Your task to perform on an android device: open app "Instagram" (install if not already installed), go to login, and select forgot password Image 0: 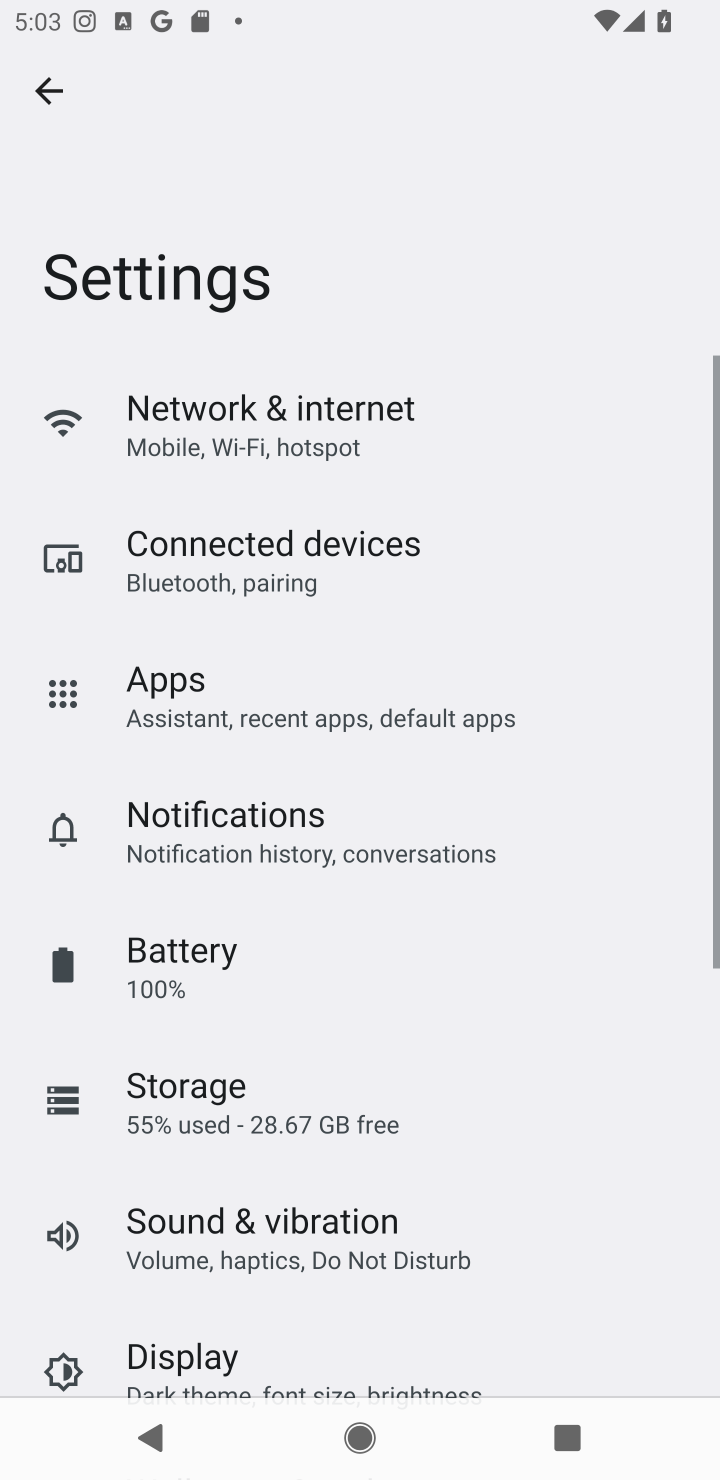
Step 0: press home button
Your task to perform on an android device: open app "Instagram" (install if not already installed), go to login, and select forgot password Image 1: 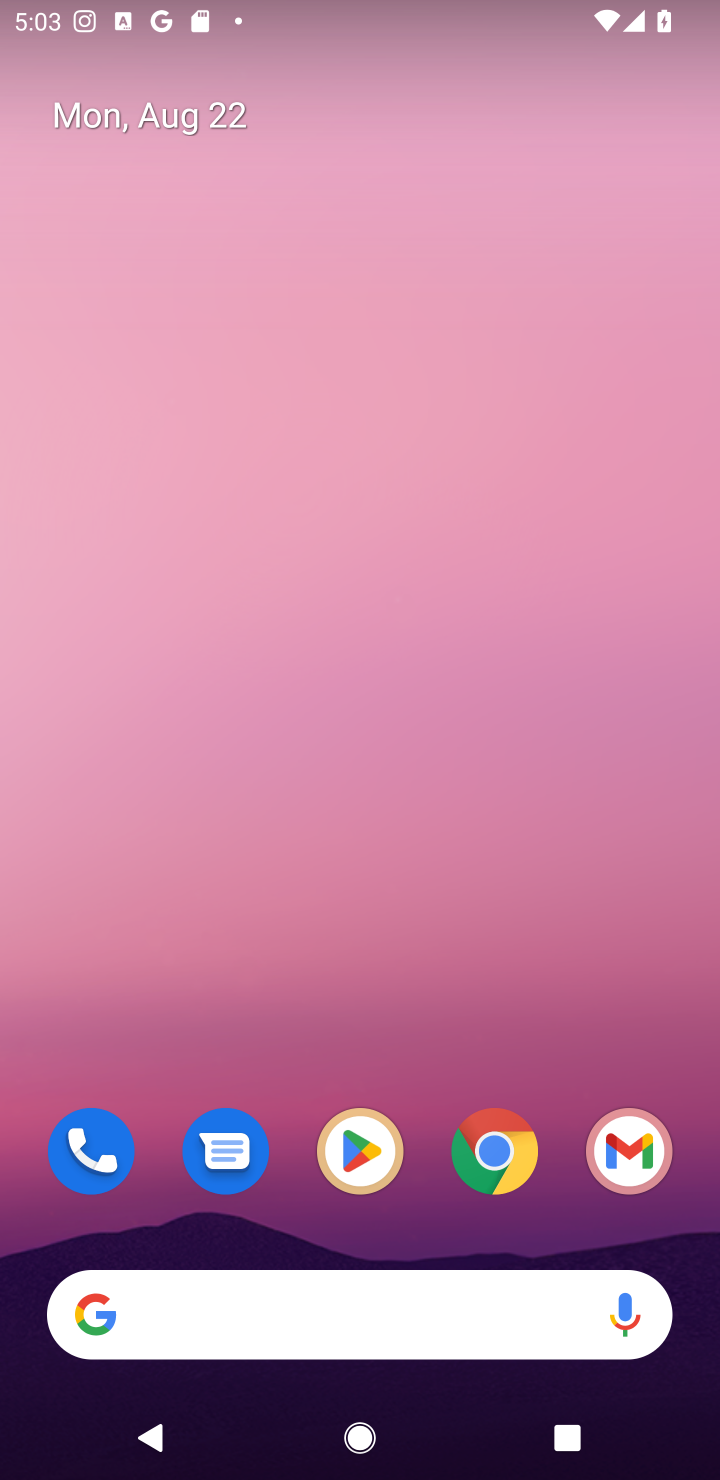
Step 1: click (344, 1150)
Your task to perform on an android device: open app "Instagram" (install if not already installed), go to login, and select forgot password Image 2: 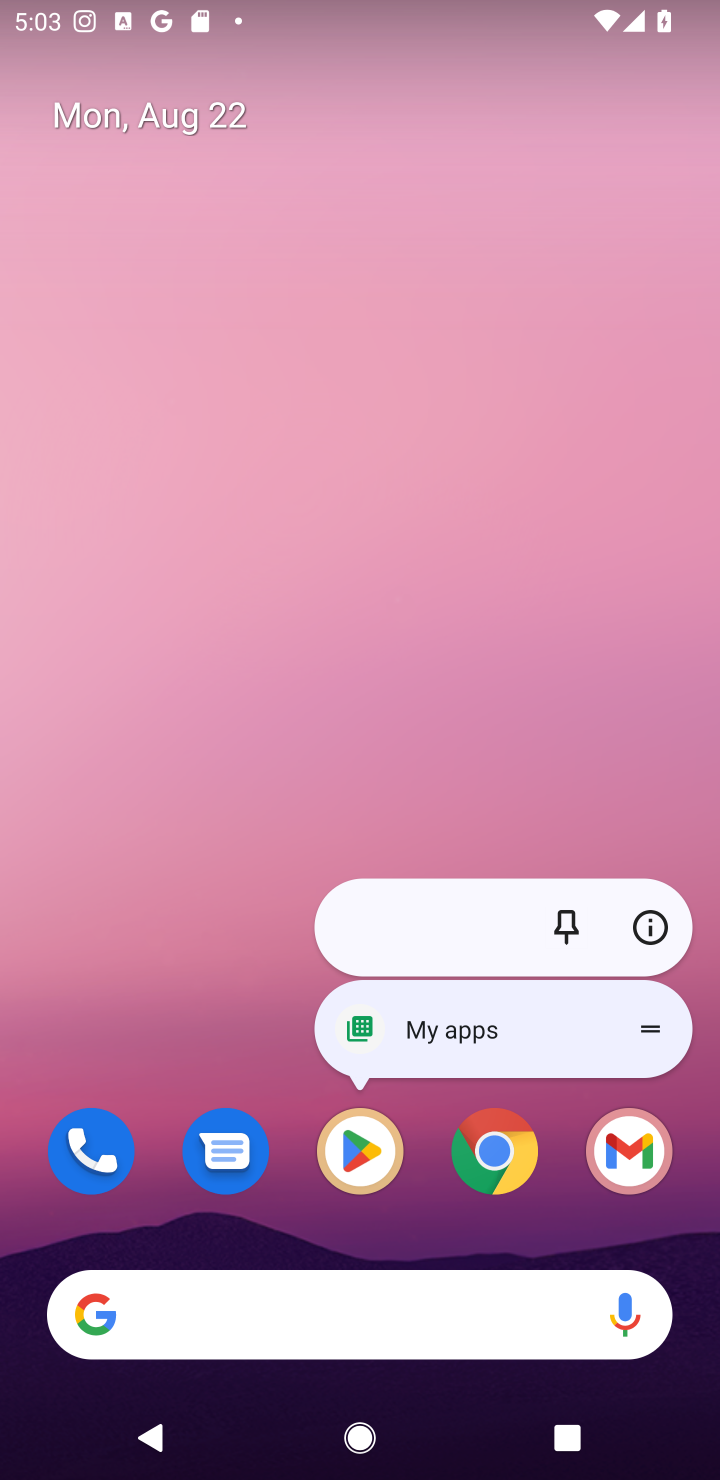
Step 2: click (354, 1150)
Your task to perform on an android device: open app "Instagram" (install if not already installed), go to login, and select forgot password Image 3: 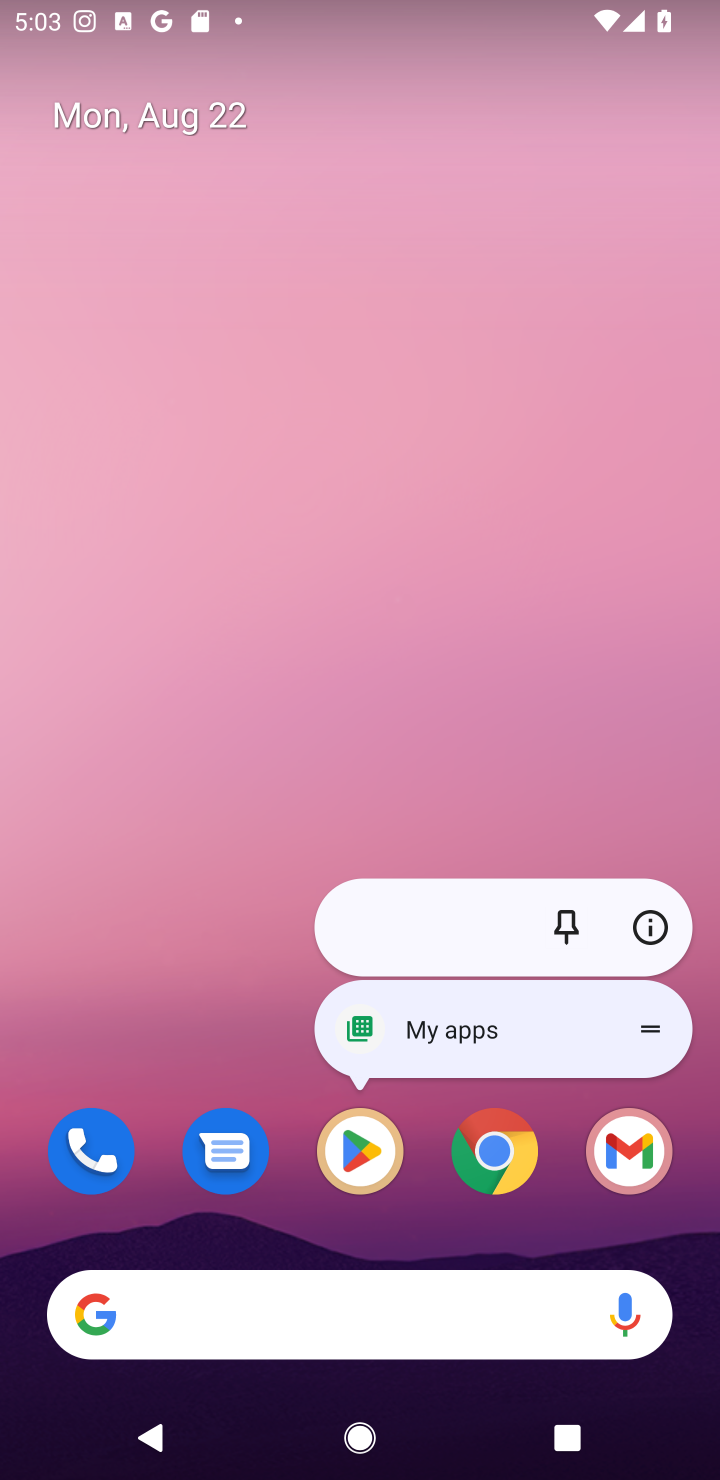
Step 3: click (354, 1152)
Your task to perform on an android device: open app "Instagram" (install if not already installed), go to login, and select forgot password Image 4: 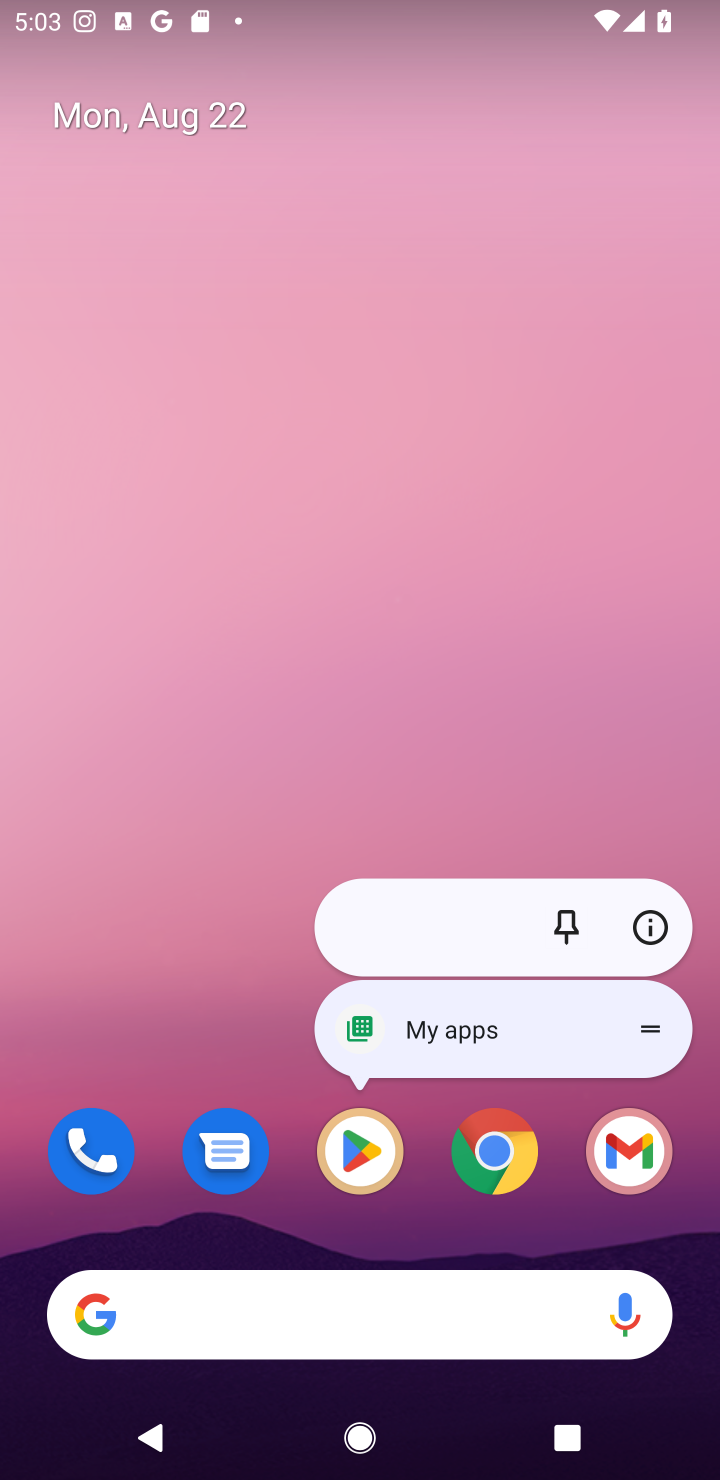
Step 4: click (375, 1164)
Your task to perform on an android device: open app "Instagram" (install if not already installed), go to login, and select forgot password Image 5: 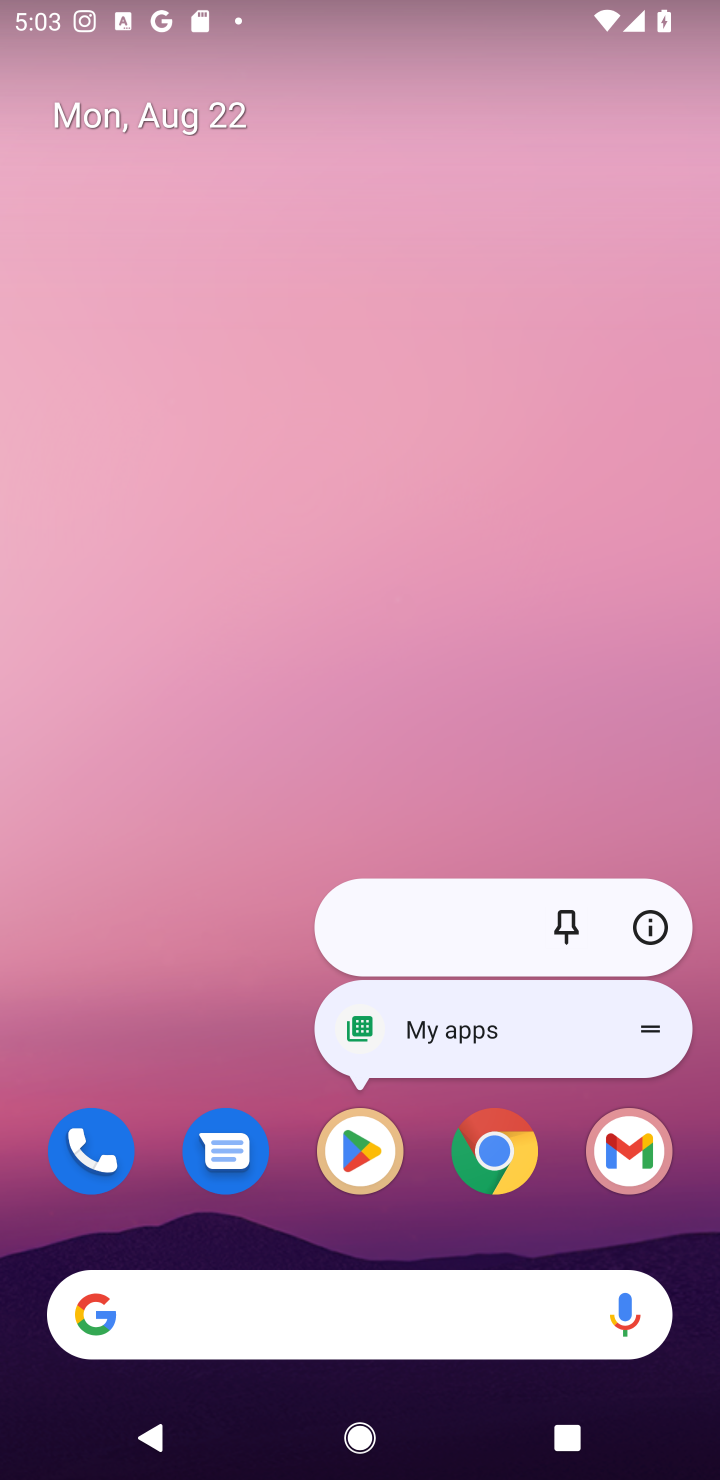
Step 5: click (363, 1166)
Your task to perform on an android device: open app "Instagram" (install if not already installed), go to login, and select forgot password Image 6: 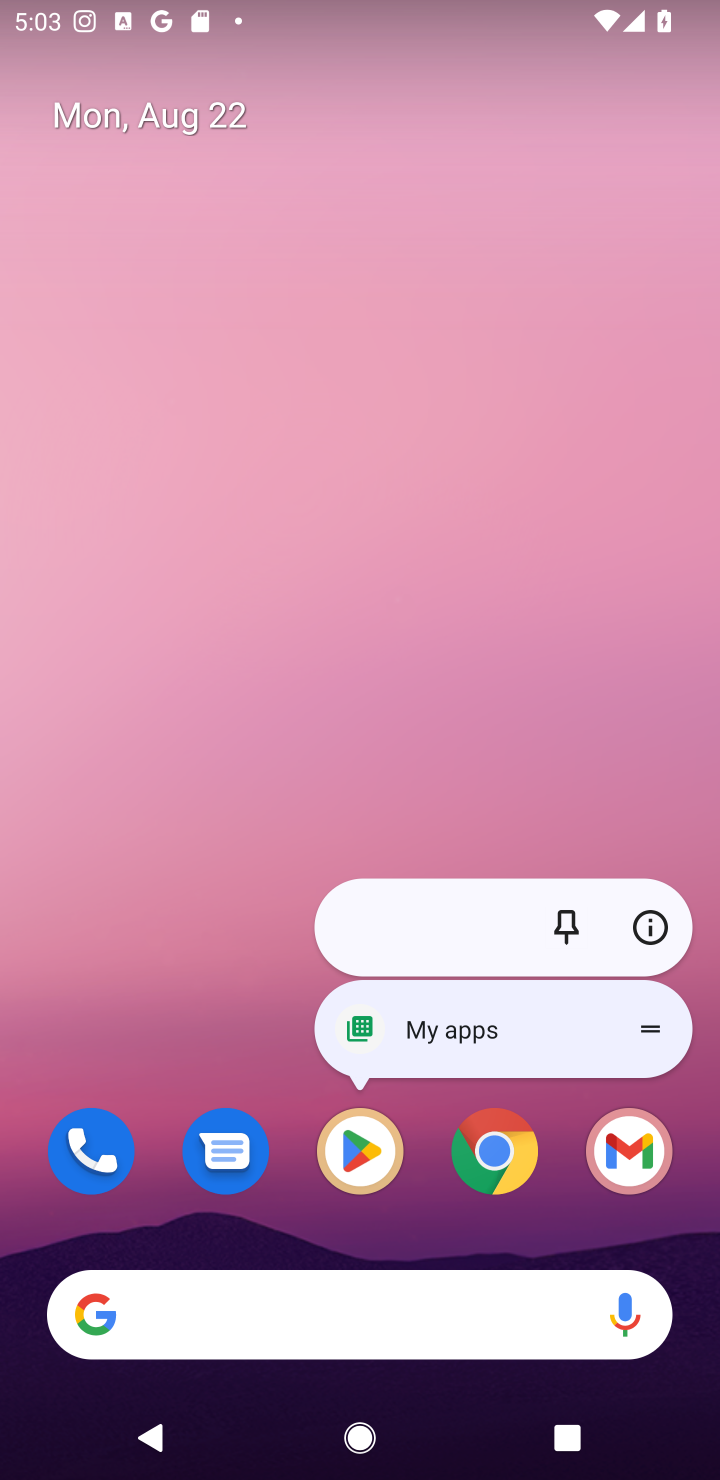
Step 6: click (363, 1171)
Your task to perform on an android device: open app "Instagram" (install if not already installed), go to login, and select forgot password Image 7: 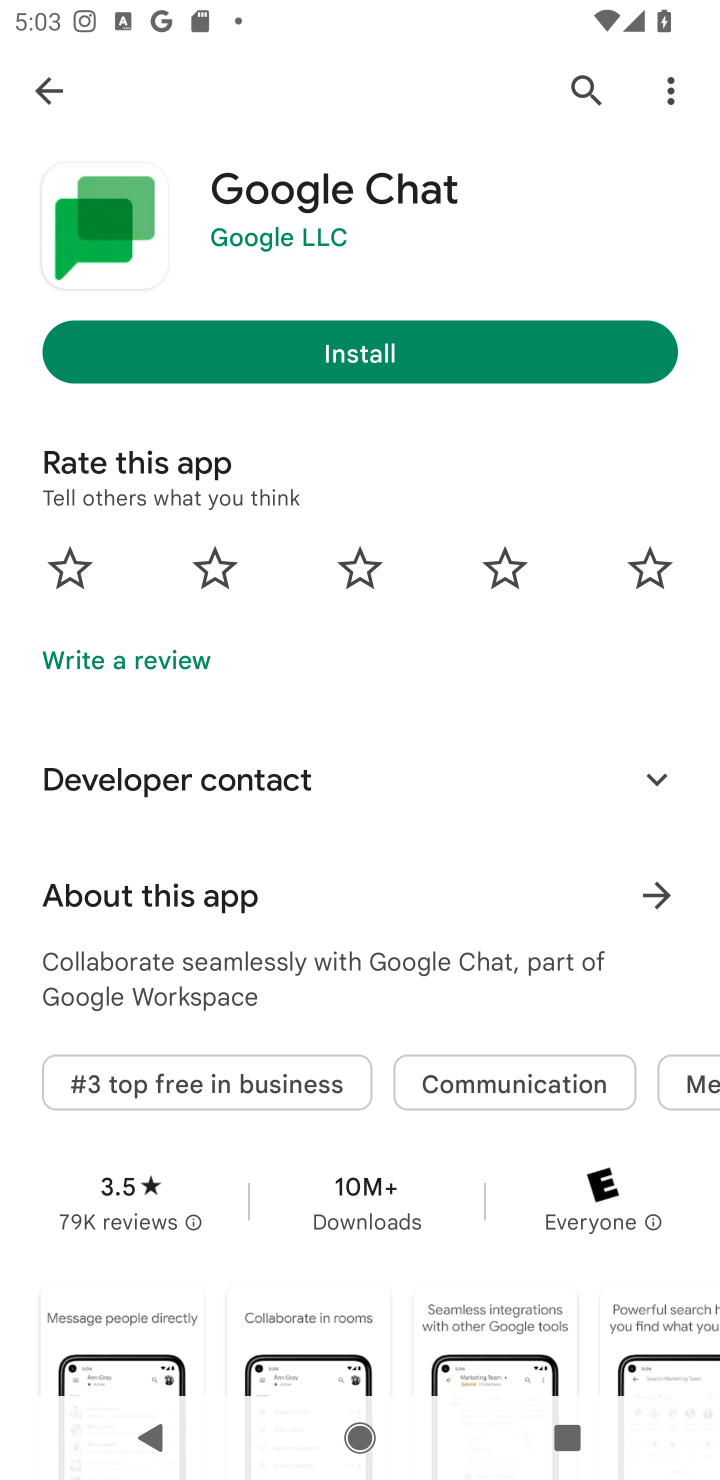
Step 7: click (576, 77)
Your task to perform on an android device: open app "Instagram" (install if not already installed), go to login, and select forgot password Image 8: 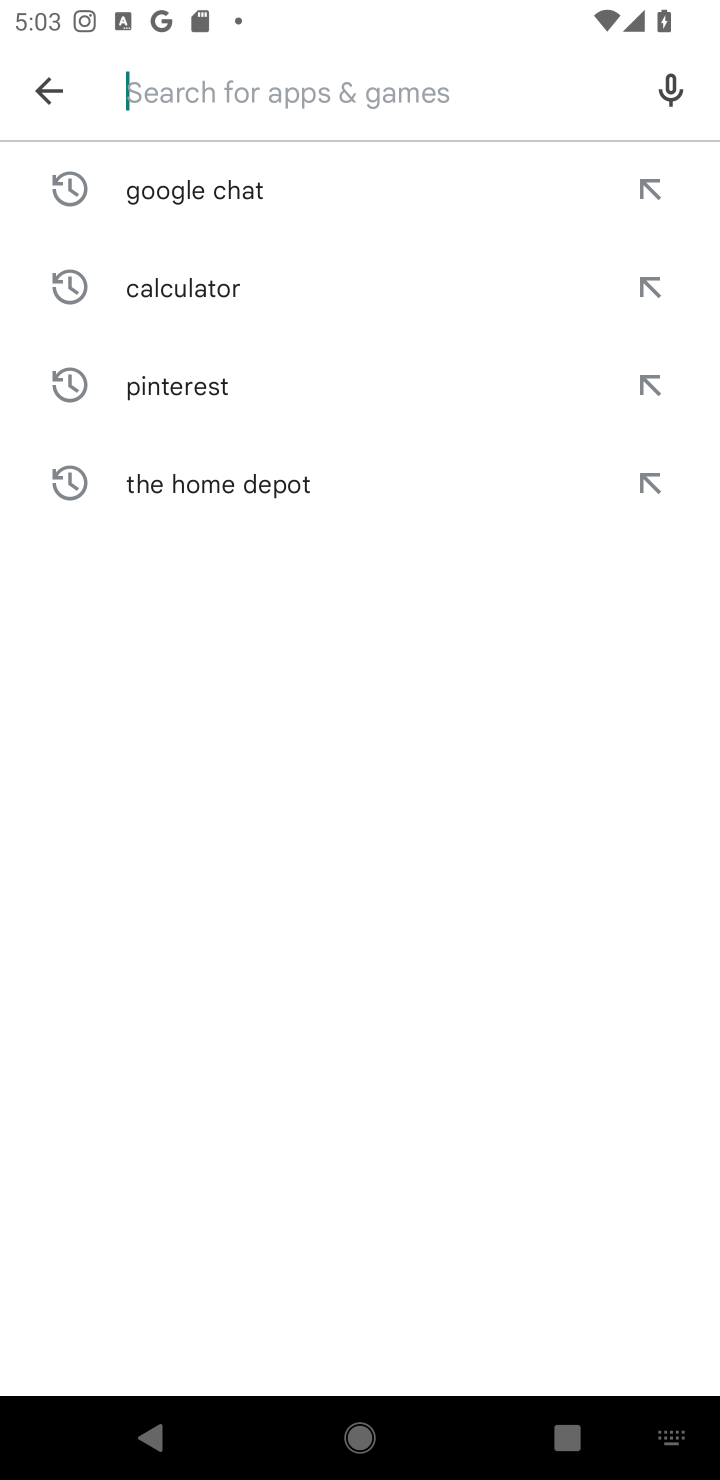
Step 8: type "Instagram"
Your task to perform on an android device: open app "Instagram" (install if not already installed), go to login, and select forgot password Image 9: 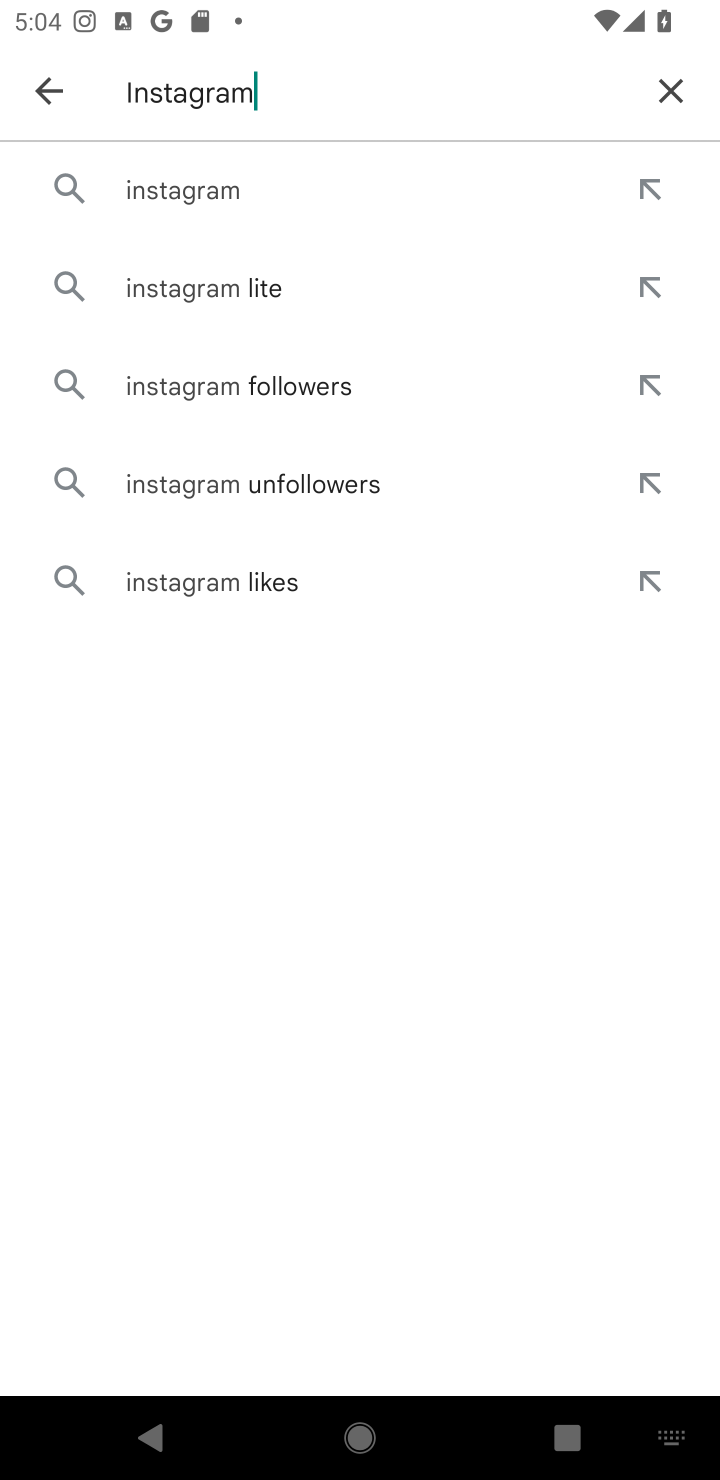
Step 9: click (163, 188)
Your task to perform on an android device: open app "Instagram" (install if not already installed), go to login, and select forgot password Image 10: 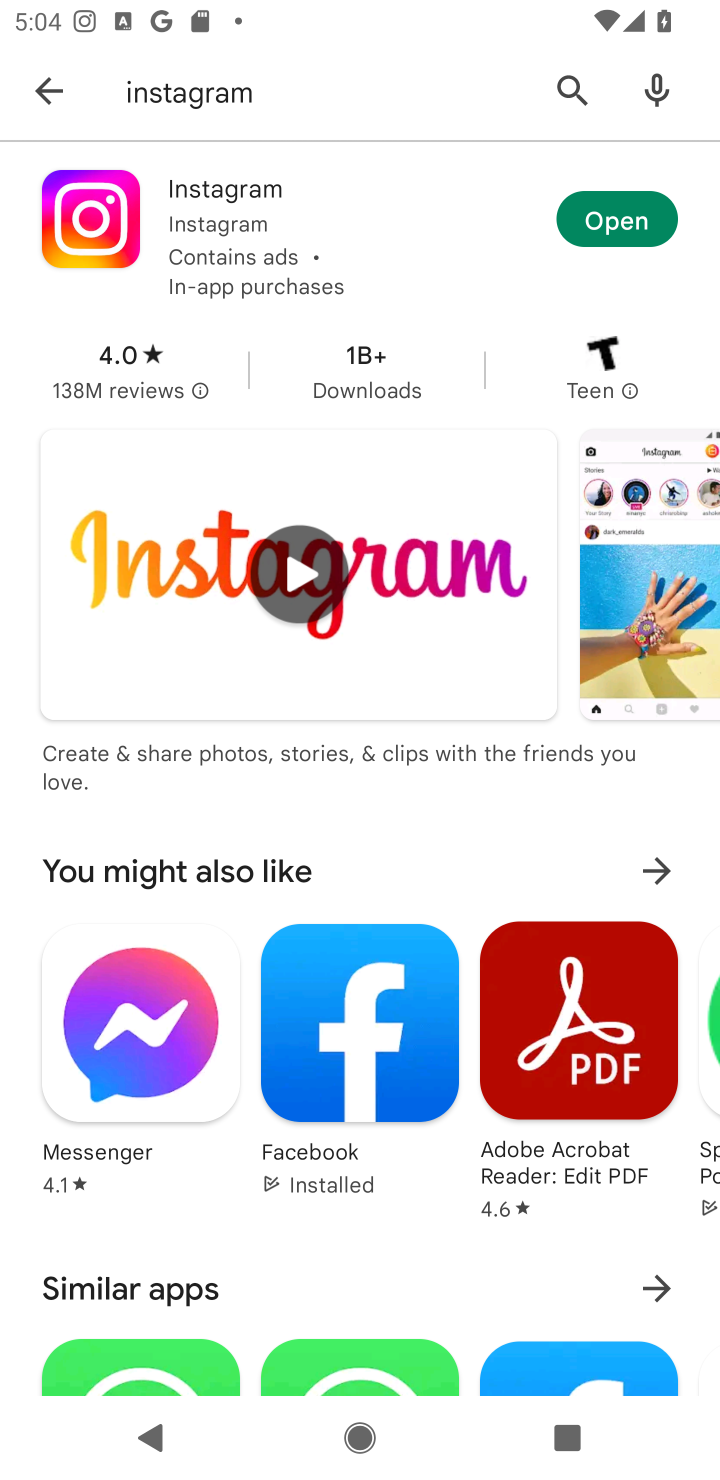
Step 10: click (594, 220)
Your task to perform on an android device: open app "Instagram" (install if not already installed), go to login, and select forgot password Image 11: 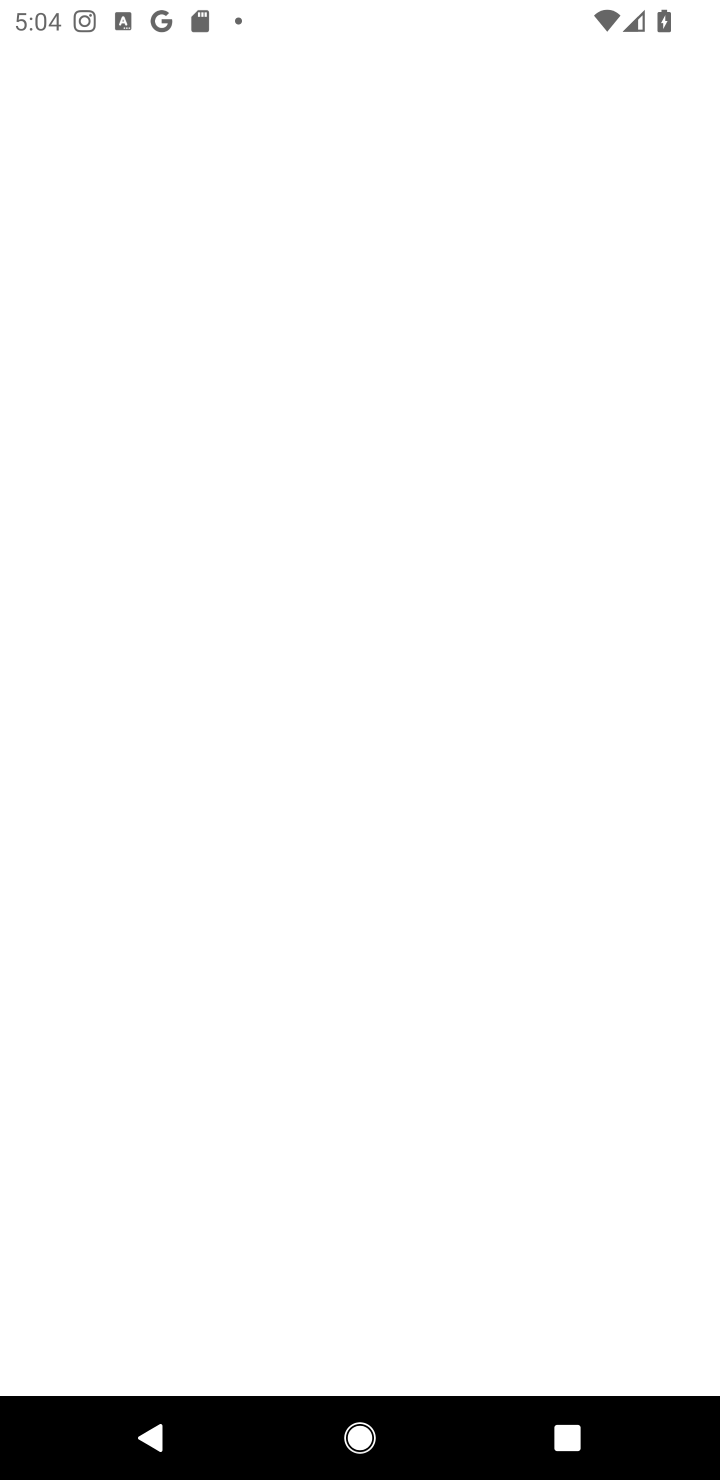
Step 11: task complete